Your task to perform on an android device: Go to CNN.com Image 0: 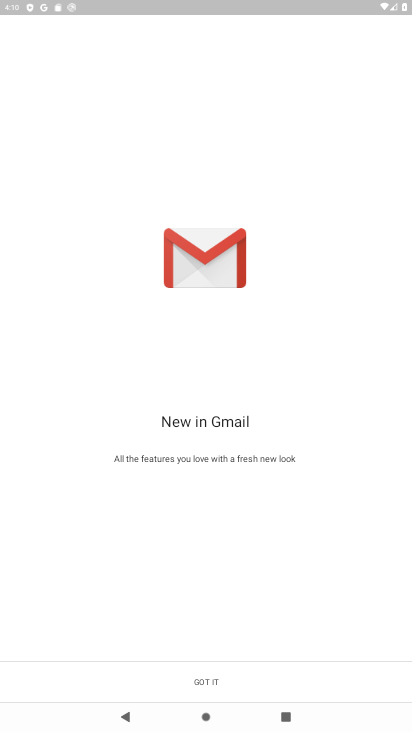
Step 0: press home button
Your task to perform on an android device: Go to CNN.com Image 1: 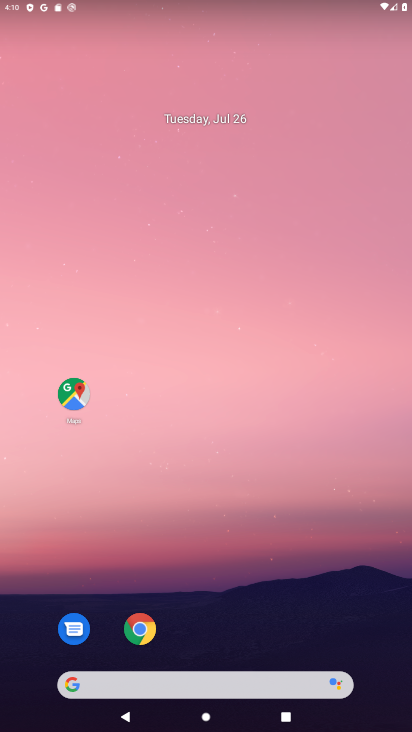
Step 1: click (137, 636)
Your task to perform on an android device: Go to CNN.com Image 2: 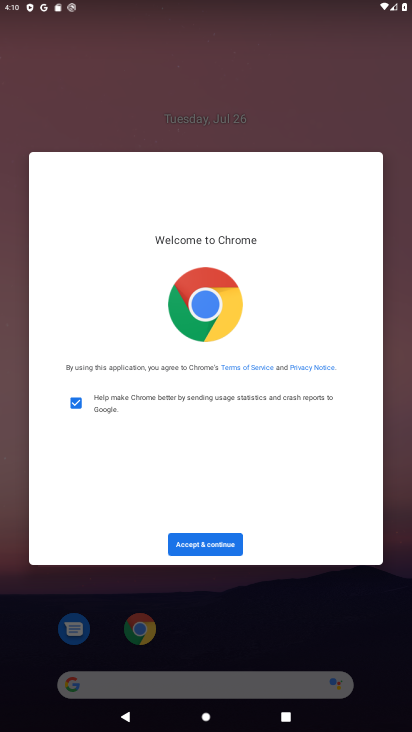
Step 2: click (220, 549)
Your task to perform on an android device: Go to CNN.com Image 3: 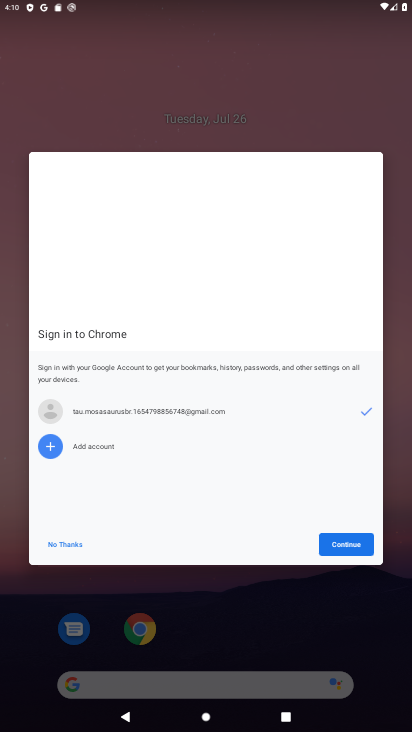
Step 3: click (361, 543)
Your task to perform on an android device: Go to CNN.com Image 4: 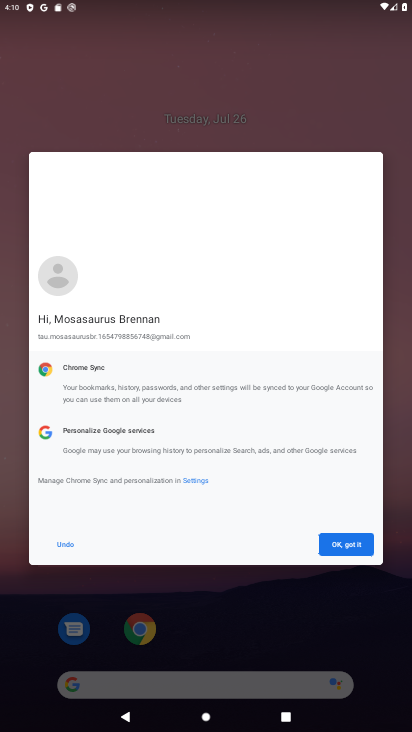
Step 4: click (361, 543)
Your task to perform on an android device: Go to CNN.com Image 5: 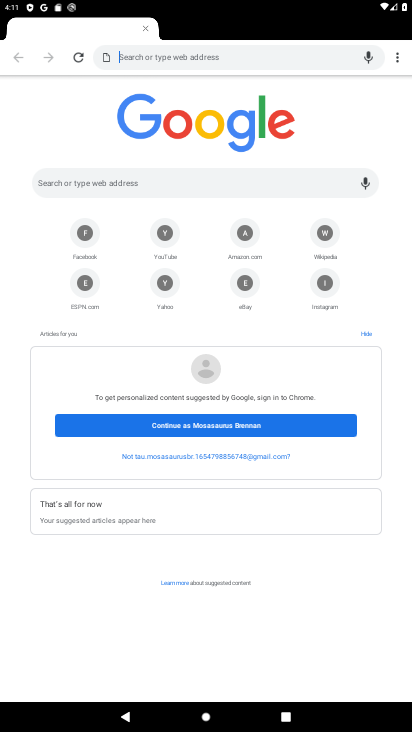
Step 5: click (251, 61)
Your task to perform on an android device: Go to CNN.com Image 6: 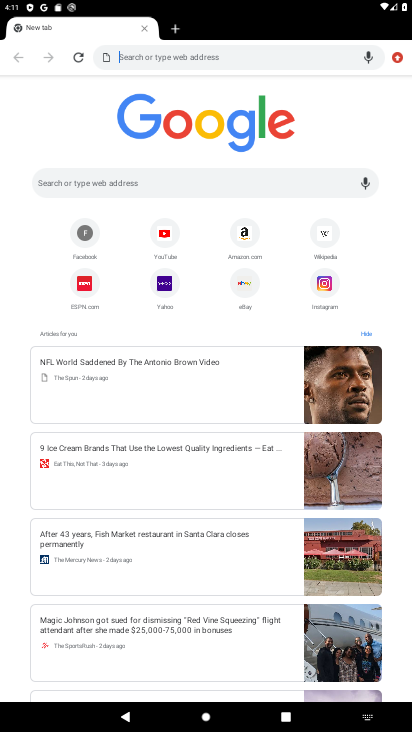
Step 6: type "CNN.com"
Your task to perform on an android device: Go to CNN.com Image 7: 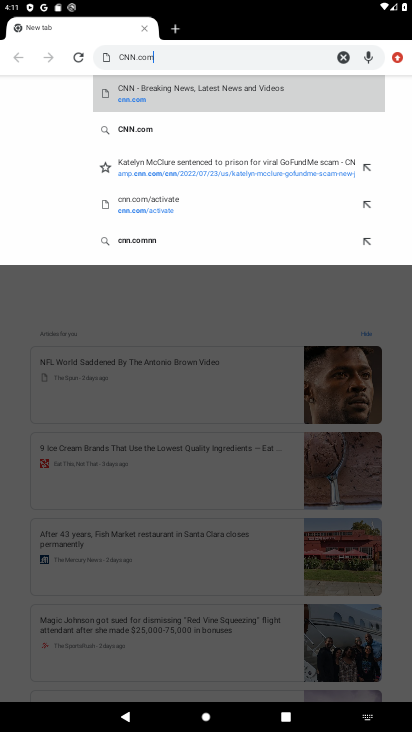
Step 7: click (269, 107)
Your task to perform on an android device: Go to CNN.com Image 8: 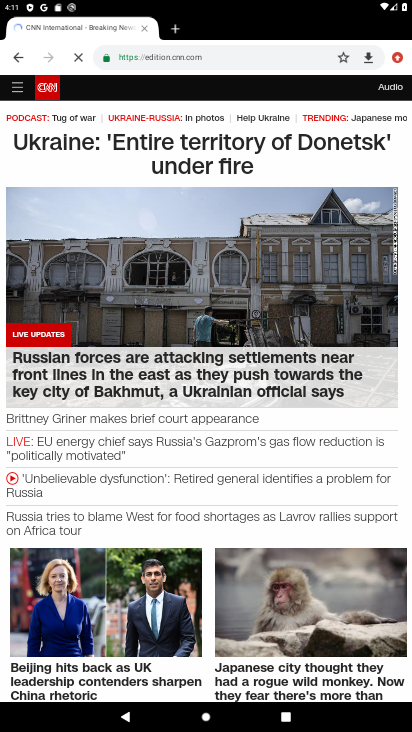
Step 8: task complete